Your task to perform on an android device: Open Yahoo.com Image 0: 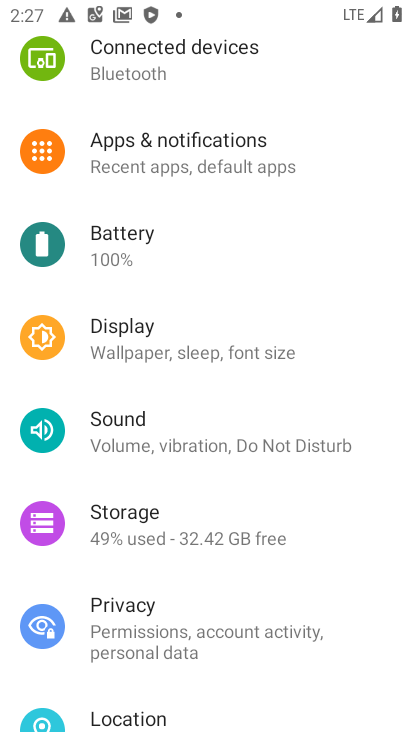
Step 0: press home button
Your task to perform on an android device: Open Yahoo.com Image 1: 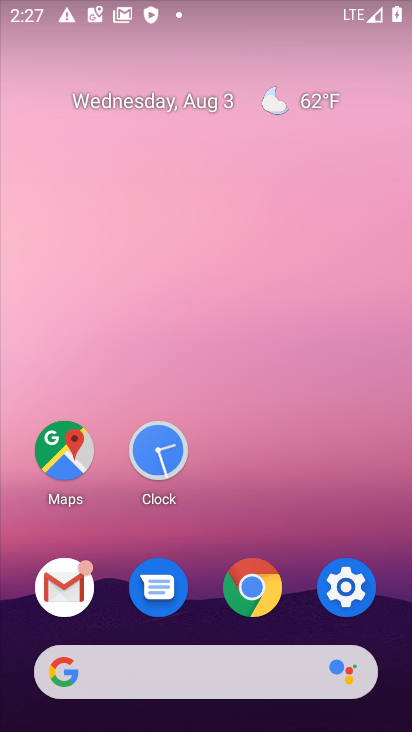
Step 1: click (251, 577)
Your task to perform on an android device: Open Yahoo.com Image 2: 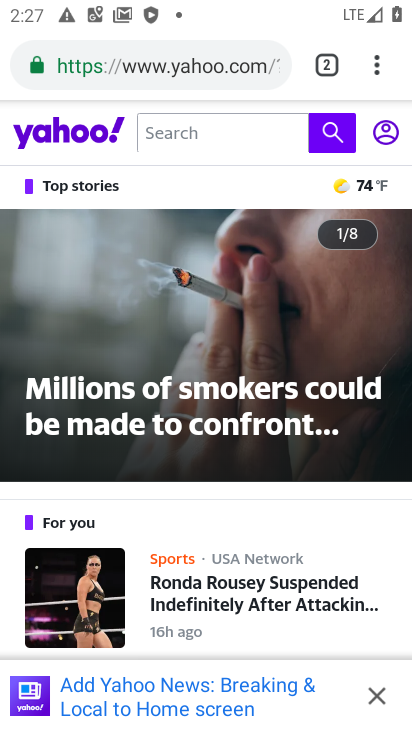
Step 2: task complete